Your task to perform on an android device: make emails show in primary in the gmail app Image 0: 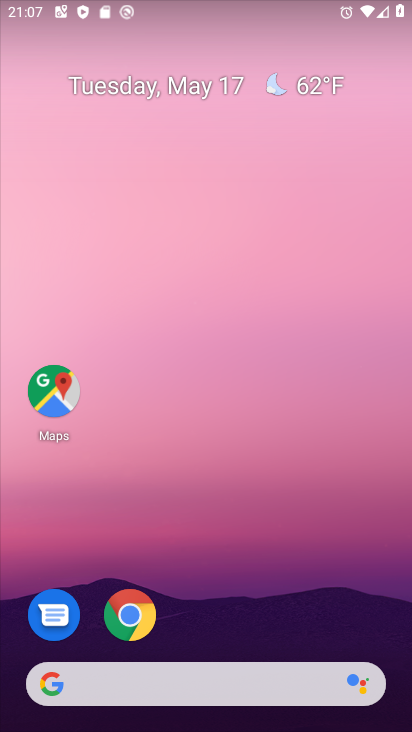
Step 0: drag from (288, 611) to (313, 61)
Your task to perform on an android device: make emails show in primary in the gmail app Image 1: 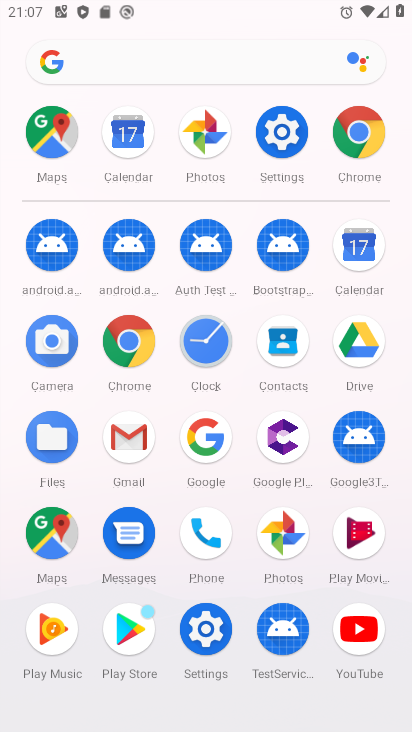
Step 1: click (134, 441)
Your task to perform on an android device: make emails show in primary in the gmail app Image 2: 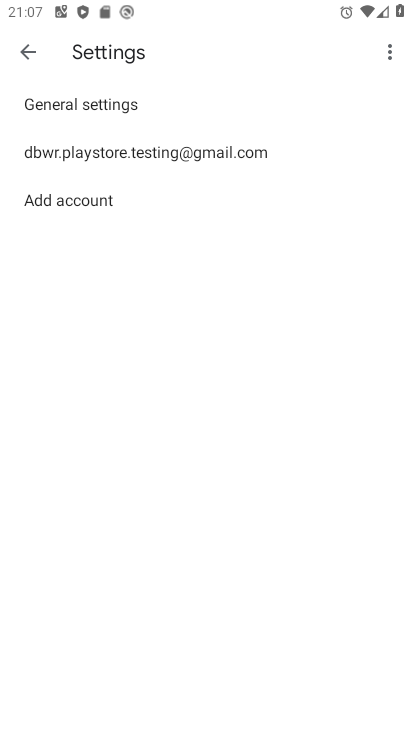
Step 2: click (149, 147)
Your task to perform on an android device: make emails show in primary in the gmail app Image 3: 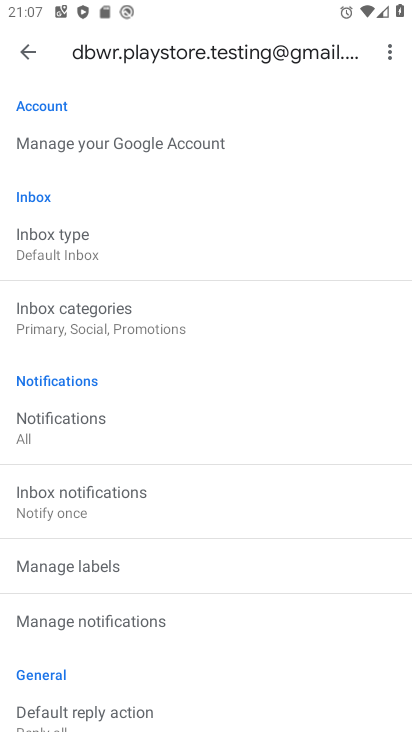
Step 3: click (72, 243)
Your task to perform on an android device: make emails show in primary in the gmail app Image 4: 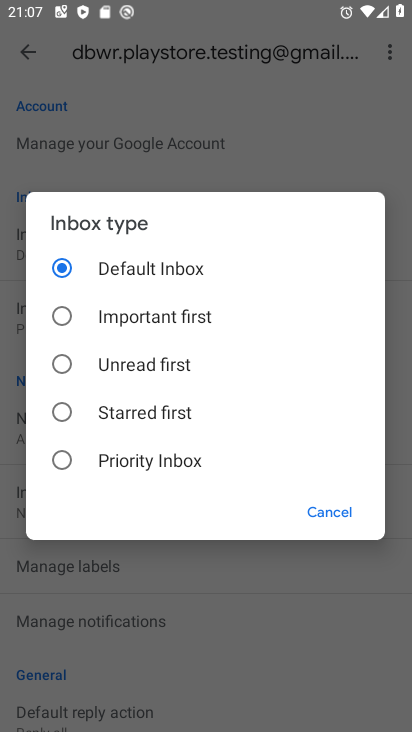
Step 4: click (136, 454)
Your task to perform on an android device: make emails show in primary in the gmail app Image 5: 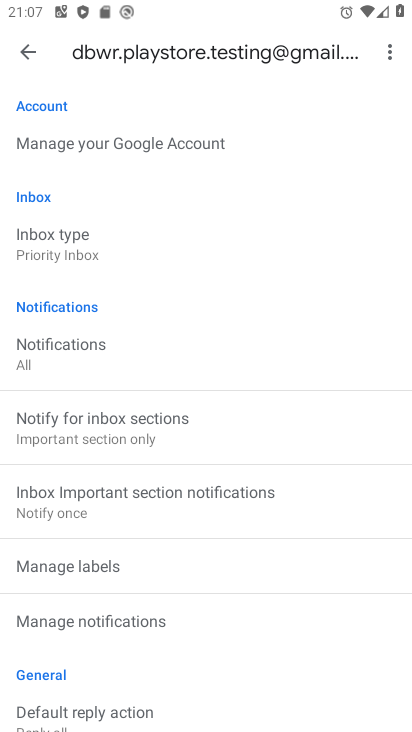
Step 5: task complete